Your task to perform on an android device: visit the assistant section in the google photos Image 0: 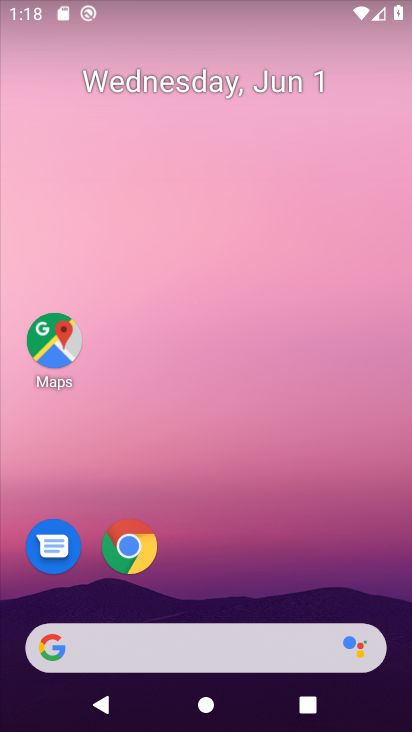
Step 0: drag from (166, 717) to (226, 48)
Your task to perform on an android device: visit the assistant section in the google photos Image 1: 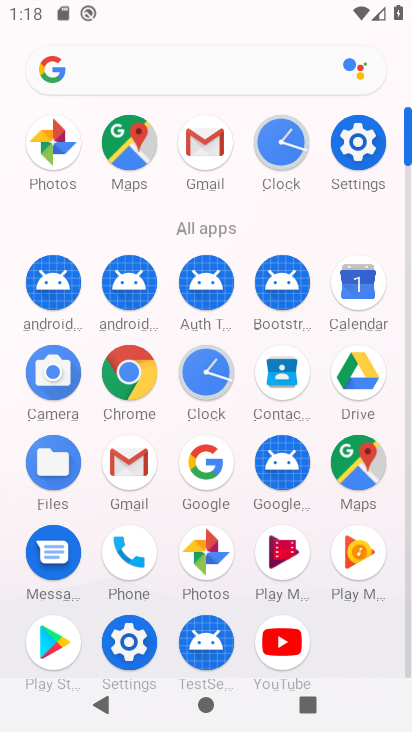
Step 1: click (45, 164)
Your task to perform on an android device: visit the assistant section in the google photos Image 2: 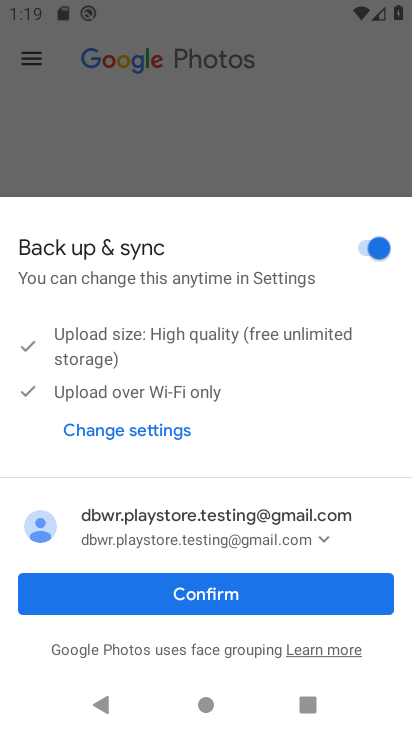
Step 2: click (270, 605)
Your task to perform on an android device: visit the assistant section in the google photos Image 3: 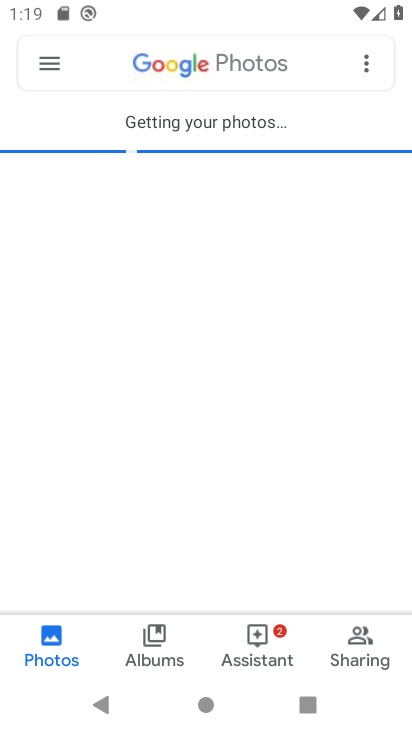
Step 3: click (261, 654)
Your task to perform on an android device: visit the assistant section in the google photos Image 4: 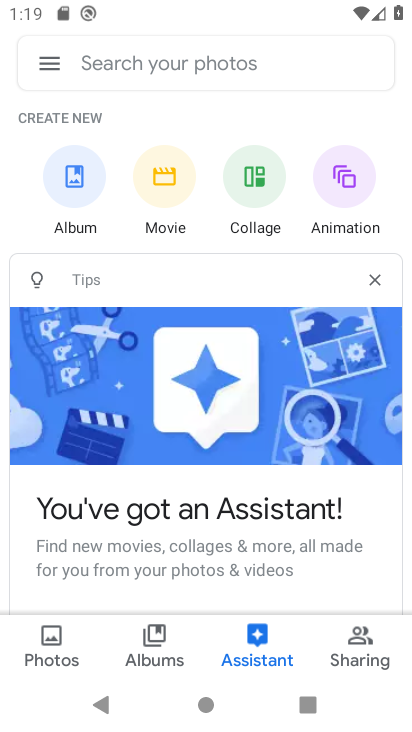
Step 4: task complete